Your task to perform on an android device: turn off translation in the chrome app Image 0: 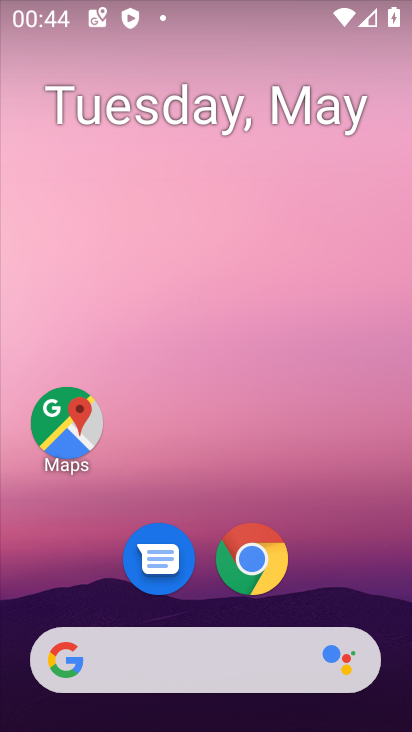
Step 0: click (274, 561)
Your task to perform on an android device: turn off translation in the chrome app Image 1: 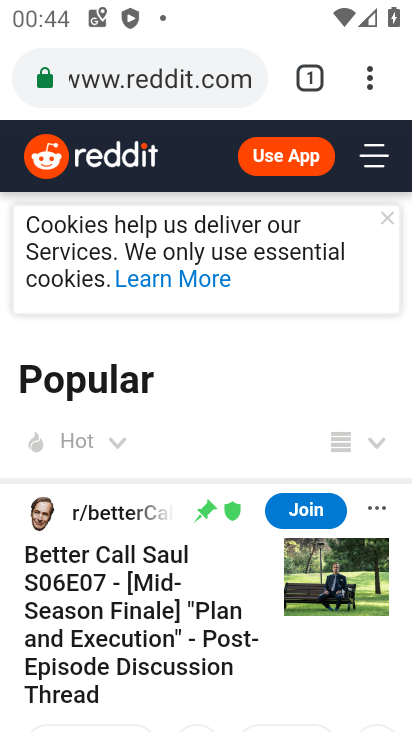
Step 1: click (377, 82)
Your task to perform on an android device: turn off translation in the chrome app Image 2: 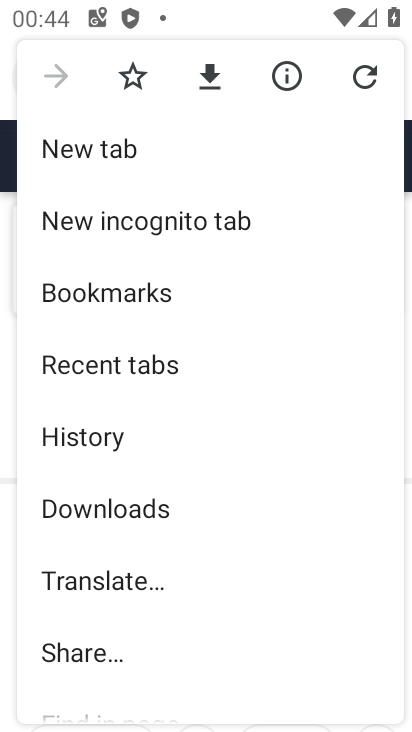
Step 2: click (195, 581)
Your task to perform on an android device: turn off translation in the chrome app Image 3: 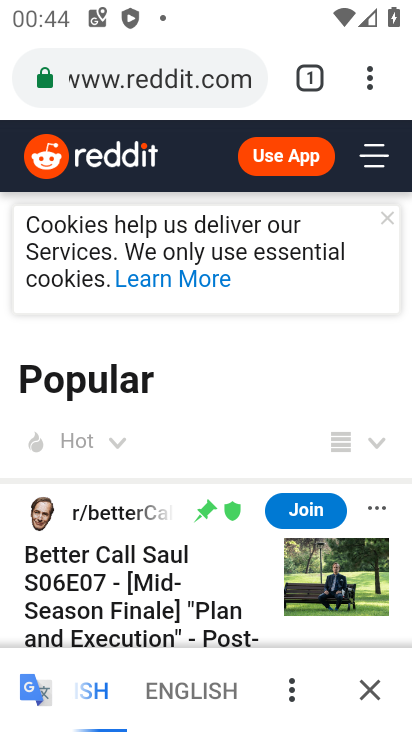
Step 3: click (295, 684)
Your task to perform on an android device: turn off translation in the chrome app Image 4: 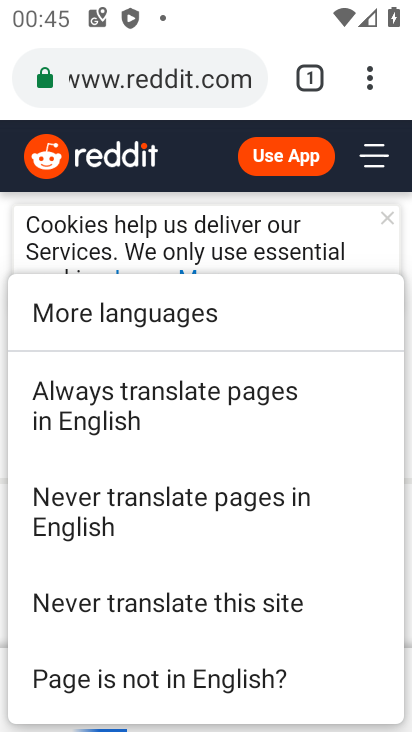
Step 4: click (254, 606)
Your task to perform on an android device: turn off translation in the chrome app Image 5: 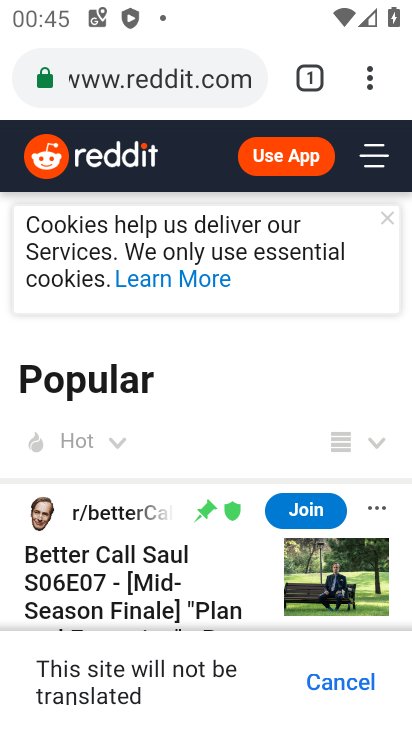
Step 5: task complete